Your task to perform on an android device: Set the phone to "Do not disturb". Image 0: 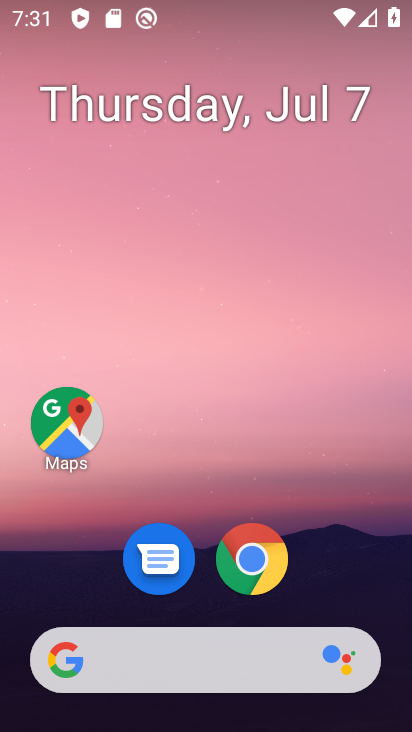
Step 0: drag from (210, 665) to (380, 25)
Your task to perform on an android device: Set the phone to "Do not disturb". Image 1: 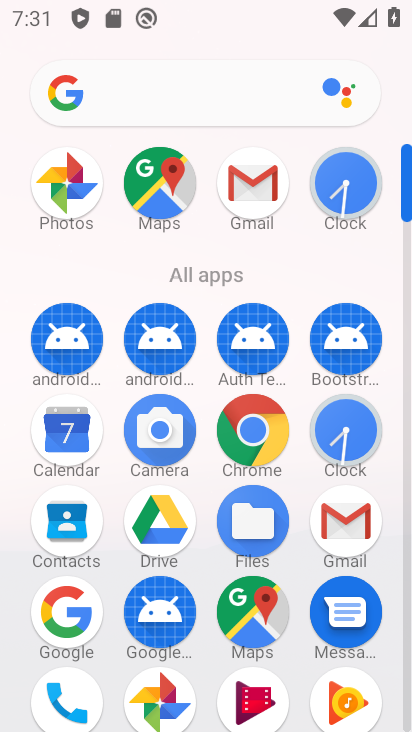
Step 1: drag from (226, 610) to (410, 120)
Your task to perform on an android device: Set the phone to "Do not disturb". Image 2: 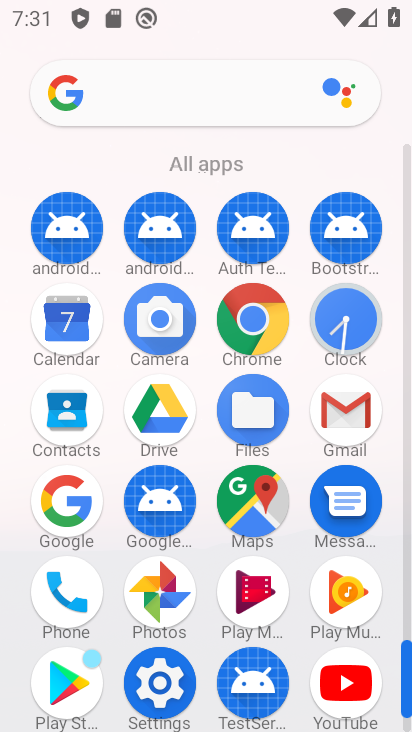
Step 2: click (168, 661)
Your task to perform on an android device: Set the phone to "Do not disturb". Image 3: 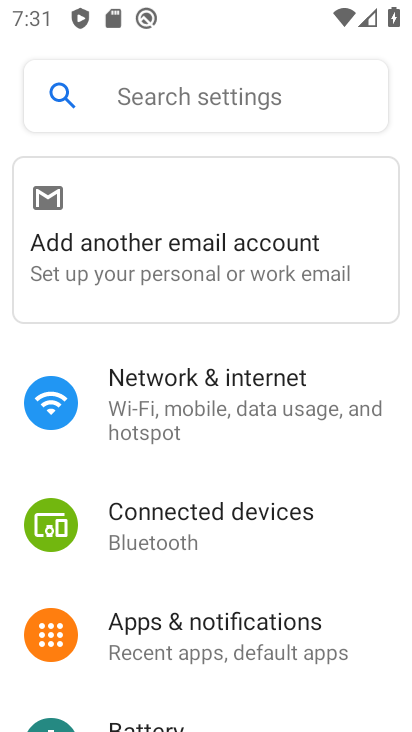
Step 3: drag from (226, 607) to (406, 87)
Your task to perform on an android device: Set the phone to "Do not disturb". Image 4: 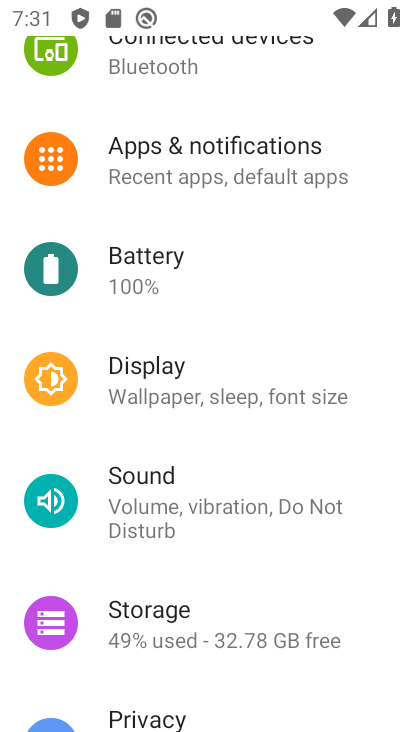
Step 4: click (201, 514)
Your task to perform on an android device: Set the phone to "Do not disturb". Image 5: 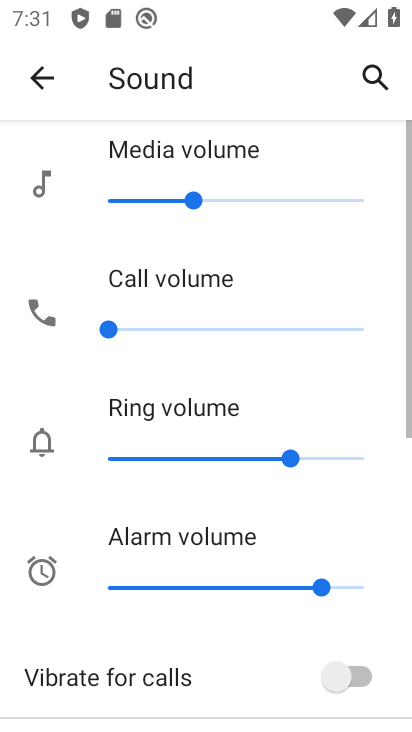
Step 5: drag from (191, 624) to (374, 205)
Your task to perform on an android device: Set the phone to "Do not disturb". Image 6: 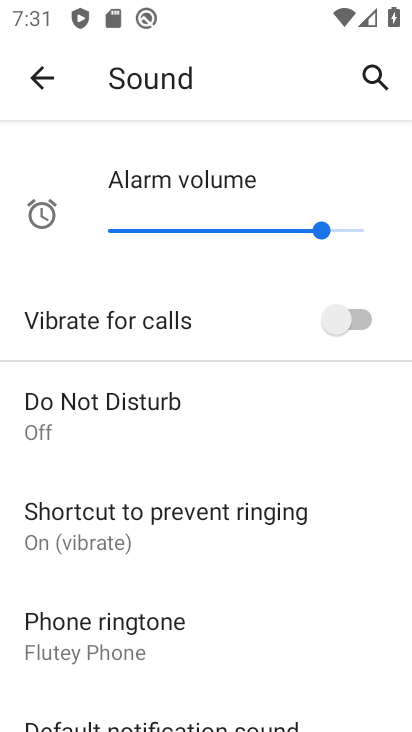
Step 6: click (108, 412)
Your task to perform on an android device: Set the phone to "Do not disturb". Image 7: 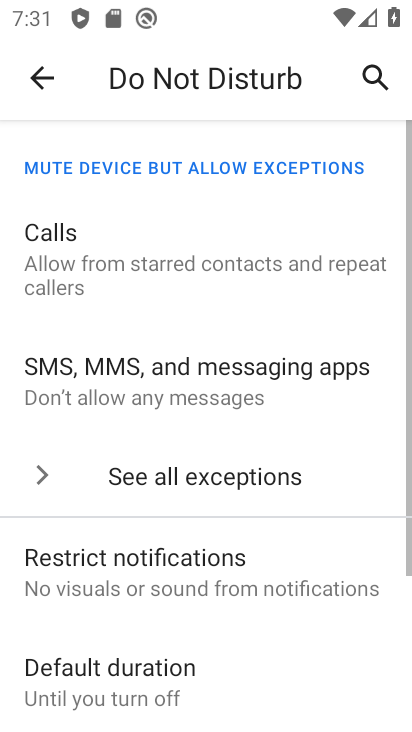
Step 7: drag from (131, 579) to (368, 145)
Your task to perform on an android device: Set the phone to "Do not disturb". Image 8: 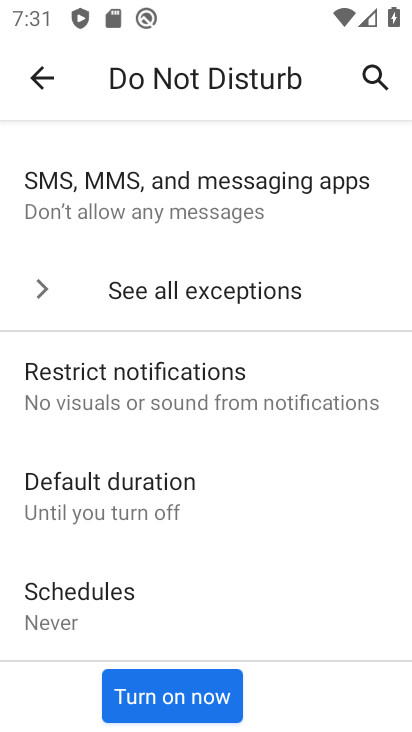
Step 8: click (165, 702)
Your task to perform on an android device: Set the phone to "Do not disturb". Image 9: 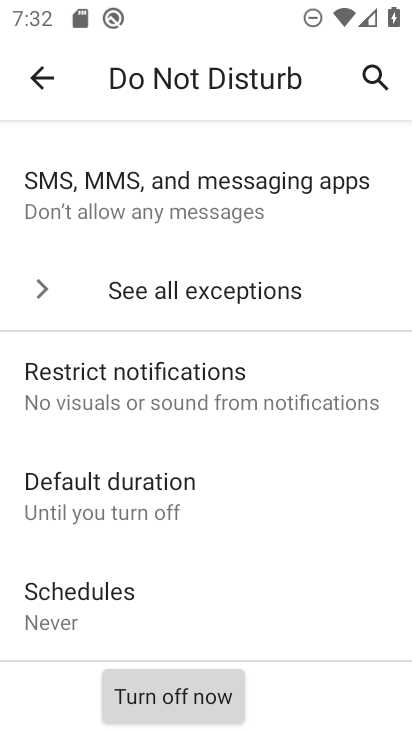
Step 9: task complete